Your task to perform on an android device: Open Amazon Image 0: 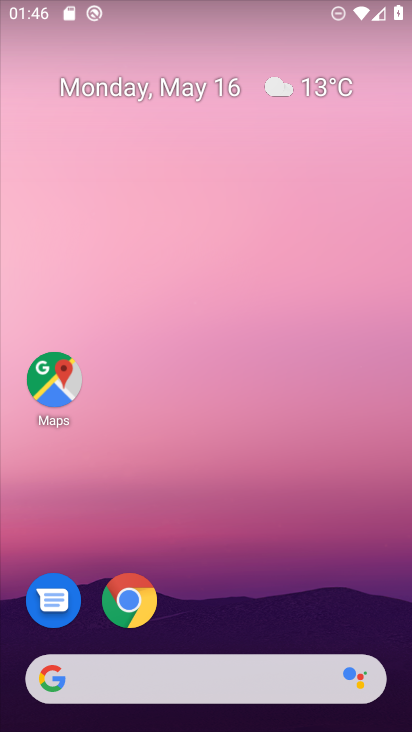
Step 0: drag from (207, 634) to (239, 22)
Your task to perform on an android device: Open Amazon Image 1: 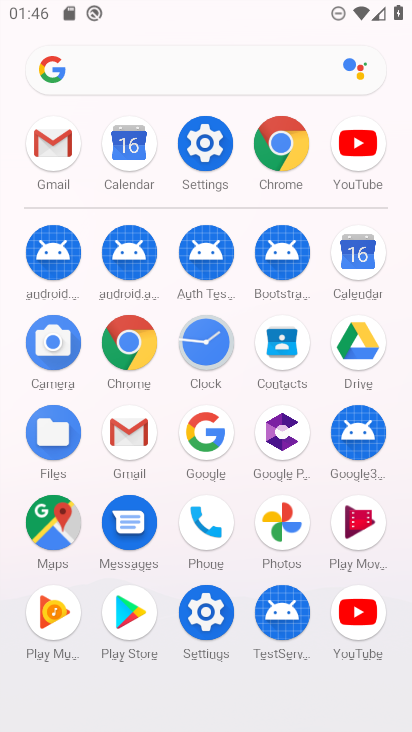
Step 1: click (125, 332)
Your task to perform on an android device: Open Amazon Image 2: 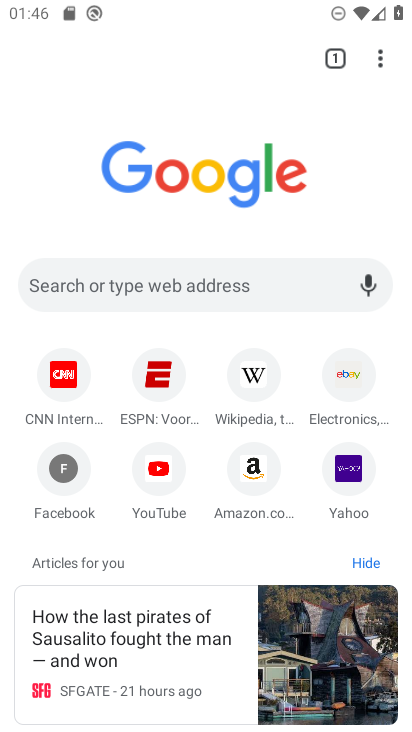
Step 2: click (251, 463)
Your task to perform on an android device: Open Amazon Image 3: 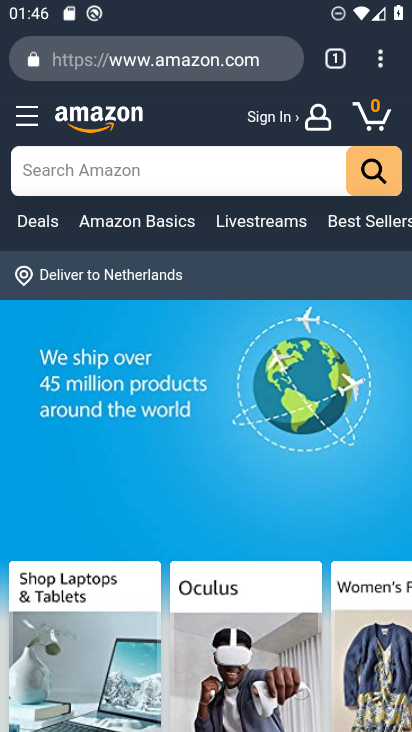
Step 3: task complete